Your task to perform on an android device: toggle pop-ups in chrome Image 0: 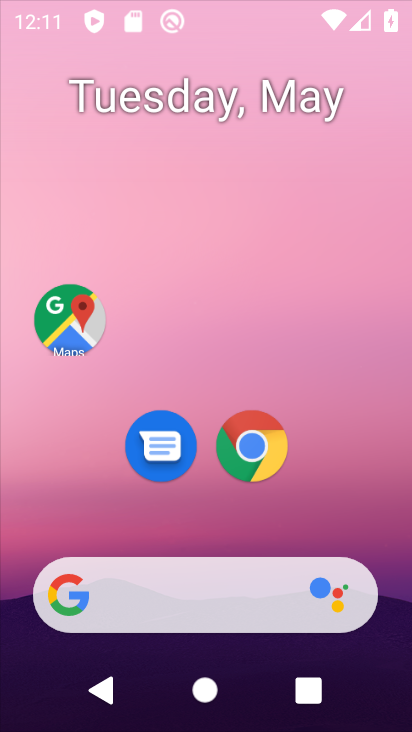
Step 0: drag from (274, 553) to (184, 30)
Your task to perform on an android device: toggle pop-ups in chrome Image 1: 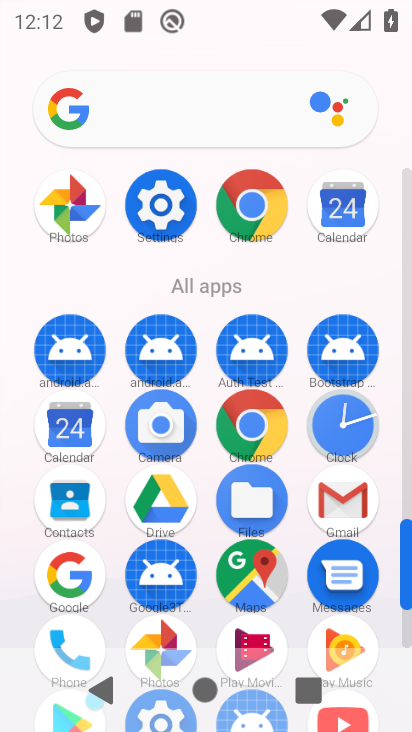
Step 1: click (264, 208)
Your task to perform on an android device: toggle pop-ups in chrome Image 2: 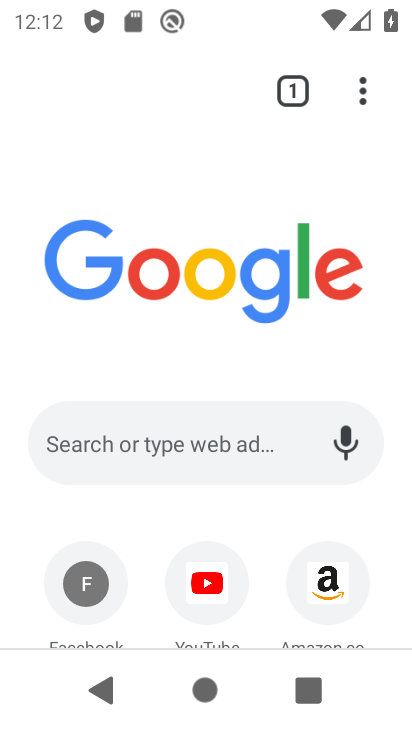
Step 2: click (365, 98)
Your task to perform on an android device: toggle pop-ups in chrome Image 3: 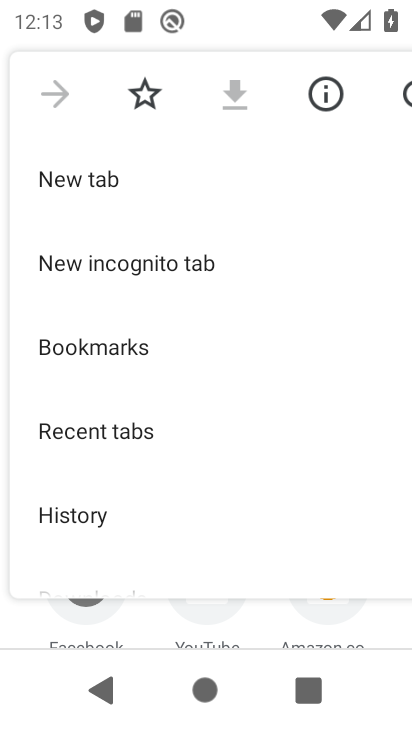
Step 3: drag from (223, 513) to (250, 177)
Your task to perform on an android device: toggle pop-ups in chrome Image 4: 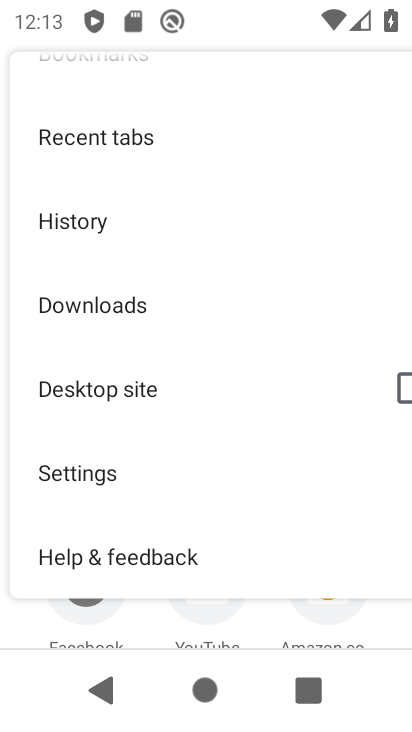
Step 4: click (111, 462)
Your task to perform on an android device: toggle pop-ups in chrome Image 5: 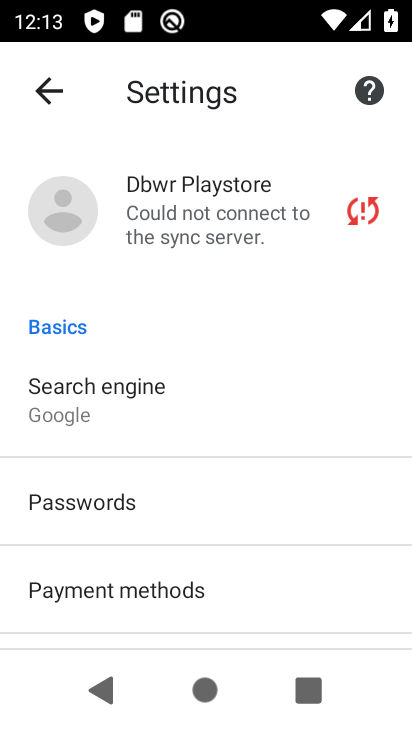
Step 5: drag from (173, 551) to (154, 121)
Your task to perform on an android device: toggle pop-ups in chrome Image 6: 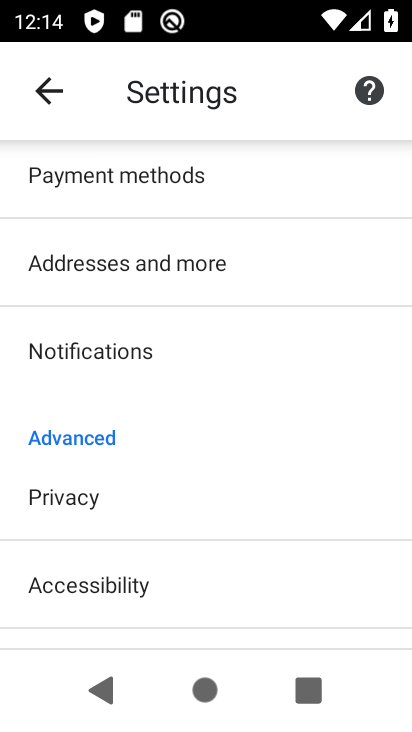
Step 6: drag from (184, 525) to (230, 153)
Your task to perform on an android device: toggle pop-ups in chrome Image 7: 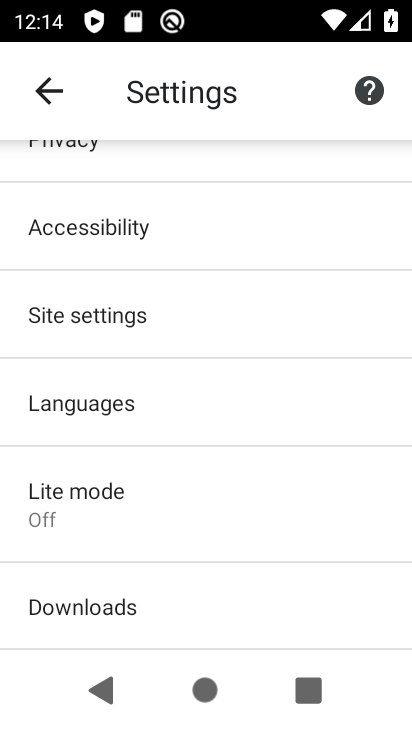
Step 7: click (139, 319)
Your task to perform on an android device: toggle pop-ups in chrome Image 8: 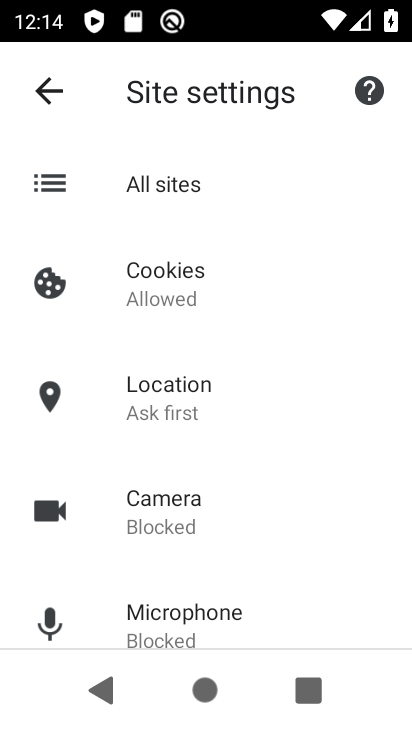
Step 8: drag from (202, 526) to (225, 245)
Your task to perform on an android device: toggle pop-ups in chrome Image 9: 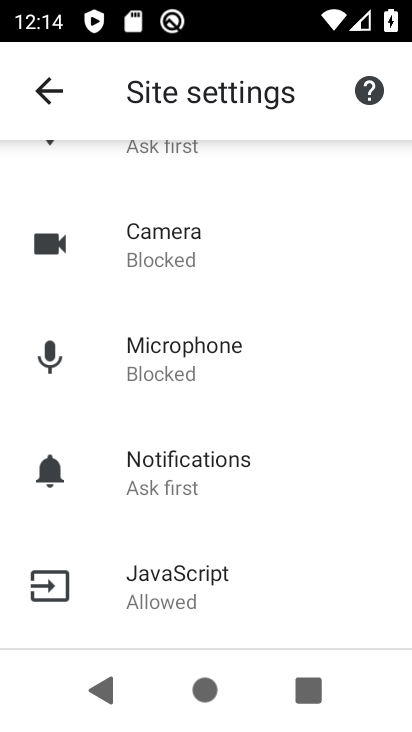
Step 9: drag from (202, 572) to (208, 314)
Your task to perform on an android device: toggle pop-ups in chrome Image 10: 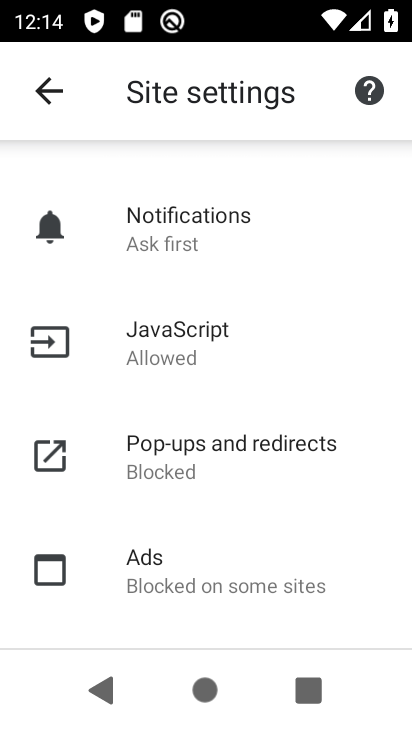
Step 10: click (199, 468)
Your task to perform on an android device: toggle pop-ups in chrome Image 11: 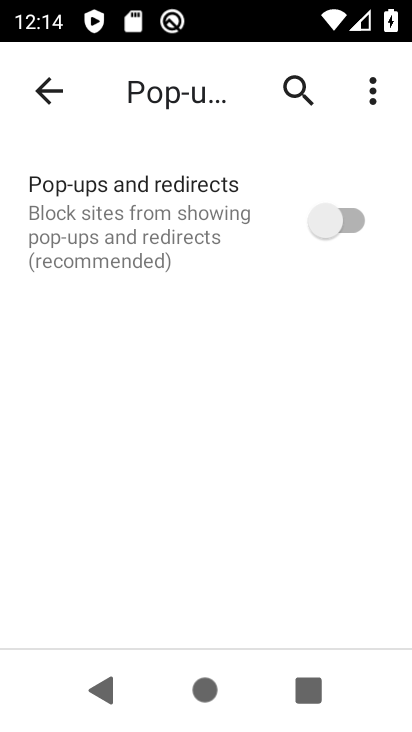
Step 11: click (264, 245)
Your task to perform on an android device: toggle pop-ups in chrome Image 12: 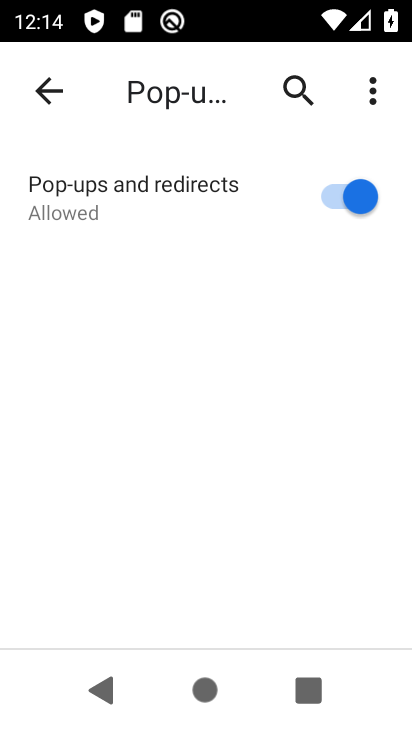
Step 12: task complete